Your task to perform on an android device: turn notification dots on Image 0: 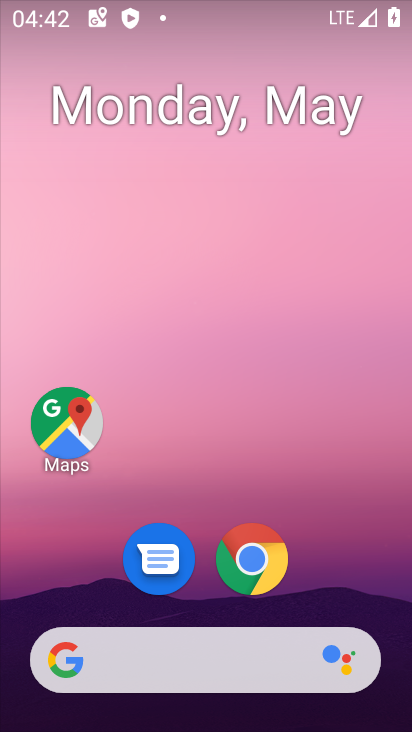
Step 0: drag from (270, 647) to (331, 9)
Your task to perform on an android device: turn notification dots on Image 1: 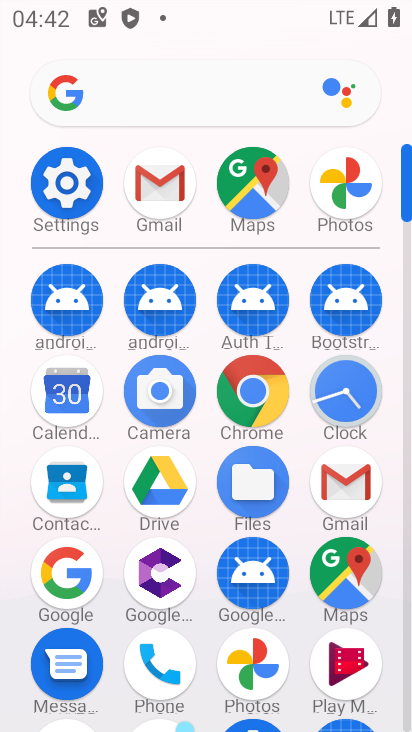
Step 1: click (65, 173)
Your task to perform on an android device: turn notification dots on Image 2: 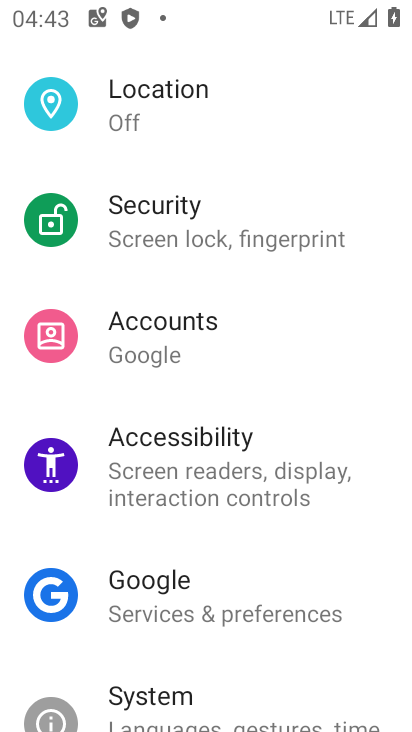
Step 2: drag from (267, 216) to (411, 188)
Your task to perform on an android device: turn notification dots on Image 3: 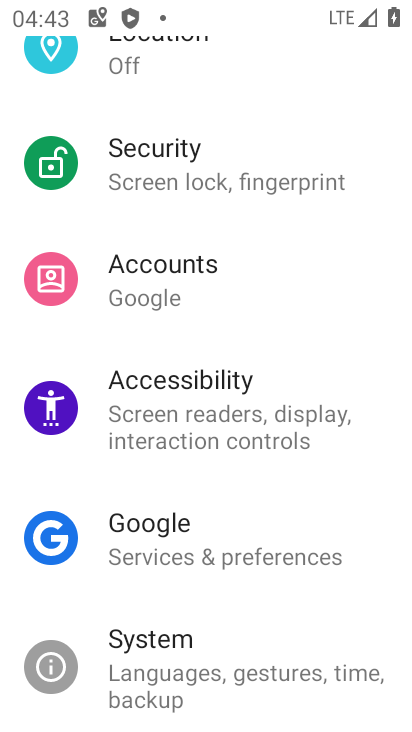
Step 3: drag from (287, 212) to (211, 713)
Your task to perform on an android device: turn notification dots on Image 4: 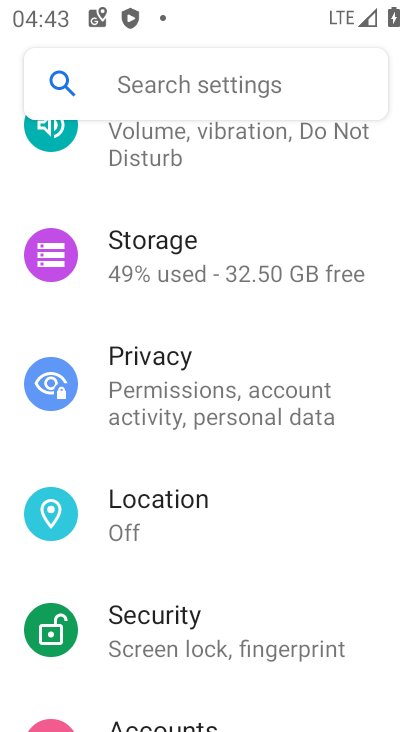
Step 4: drag from (228, 296) to (218, 727)
Your task to perform on an android device: turn notification dots on Image 5: 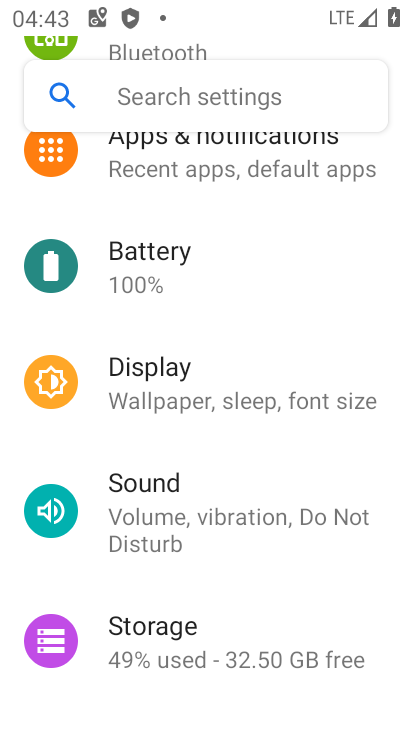
Step 5: click (177, 176)
Your task to perform on an android device: turn notification dots on Image 6: 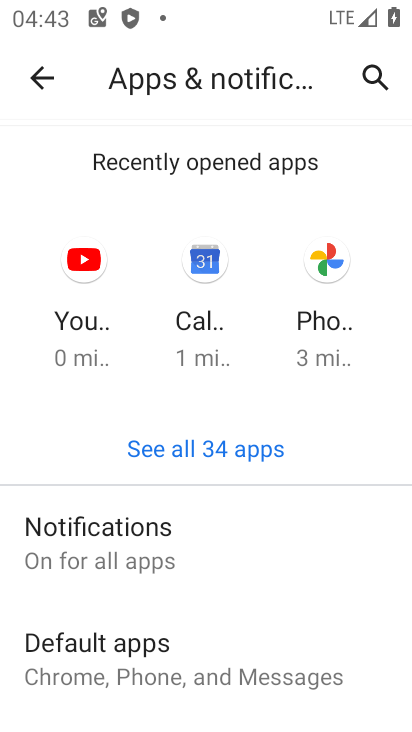
Step 6: click (166, 553)
Your task to perform on an android device: turn notification dots on Image 7: 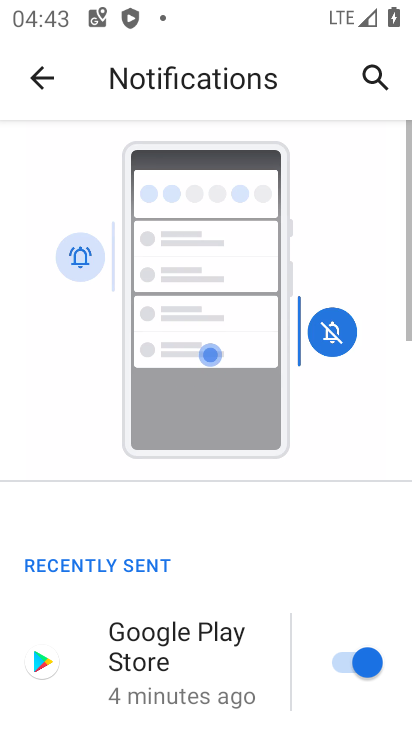
Step 7: drag from (200, 719) to (261, 78)
Your task to perform on an android device: turn notification dots on Image 8: 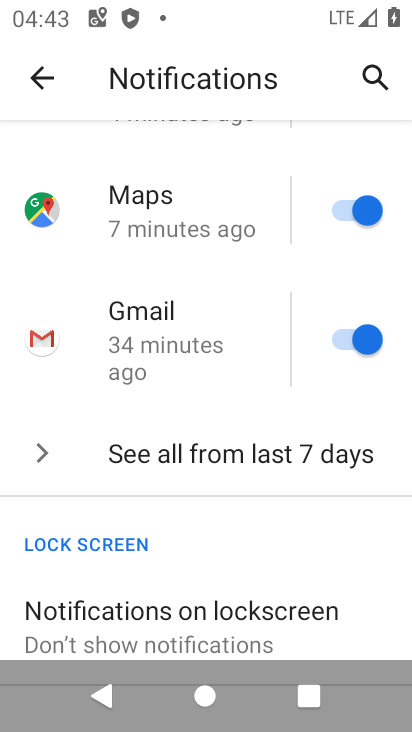
Step 8: drag from (256, 599) to (291, 185)
Your task to perform on an android device: turn notification dots on Image 9: 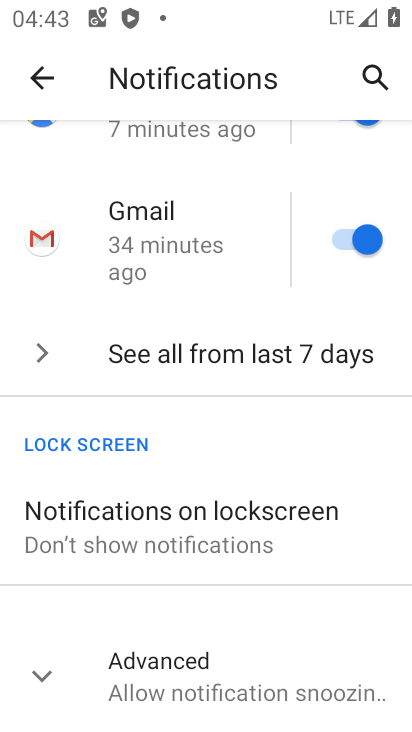
Step 9: click (212, 670)
Your task to perform on an android device: turn notification dots on Image 10: 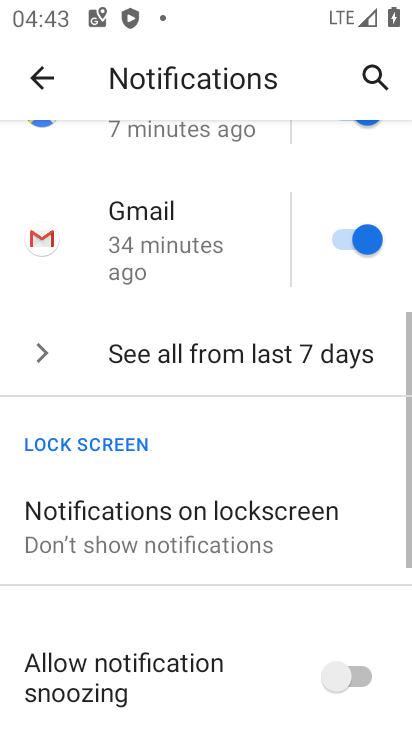
Step 10: drag from (227, 677) to (276, 170)
Your task to perform on an android device: turn notification dots on Image 11: 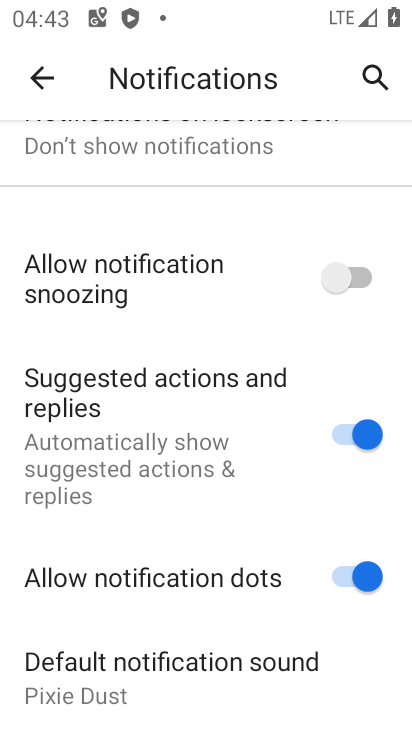
Step 11: click (343, 568)
Your task to perform on an android device: turn notification dots on Image 12: 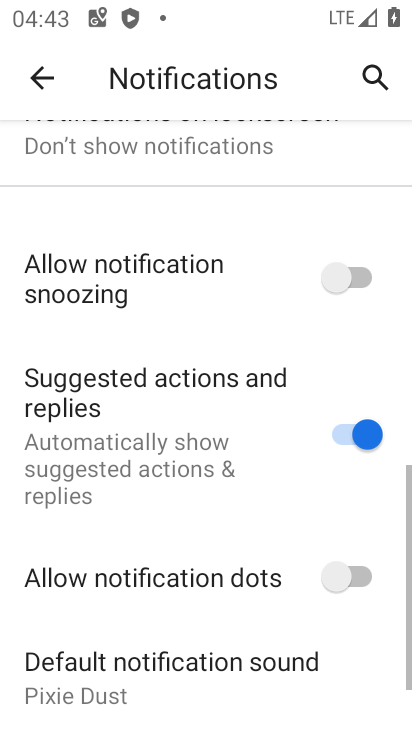
Step 12: task complete